Your task to perform on an android device: turn on priority inbox in the gmail app Image 0: 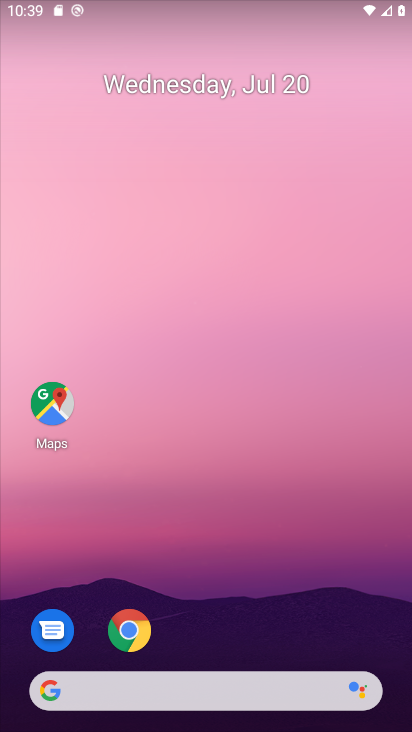
Step 0: drag from (297, 681) to (232, 87)
Your task to perform on an android device: turn on priority inbox in the gmail app Image 1: 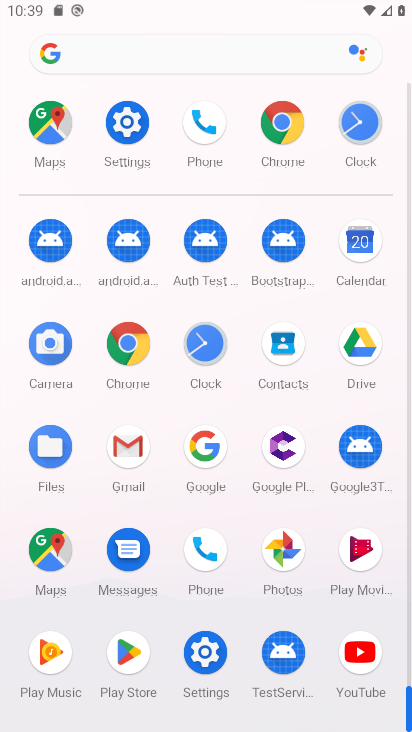
Step 1: click (126, 442)
Your task to perform on an android device: turn on priority inbox in the gmail app Image 2: 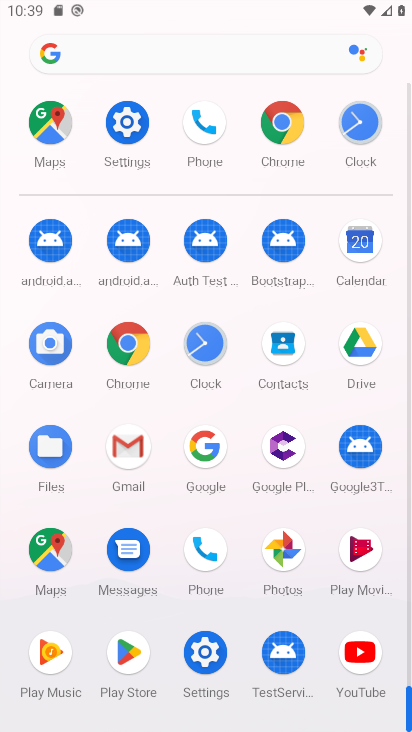
Step 2: click (126, 441)
Your task to perform on an android device: turn on priority inbox in the gmail app Image 3: 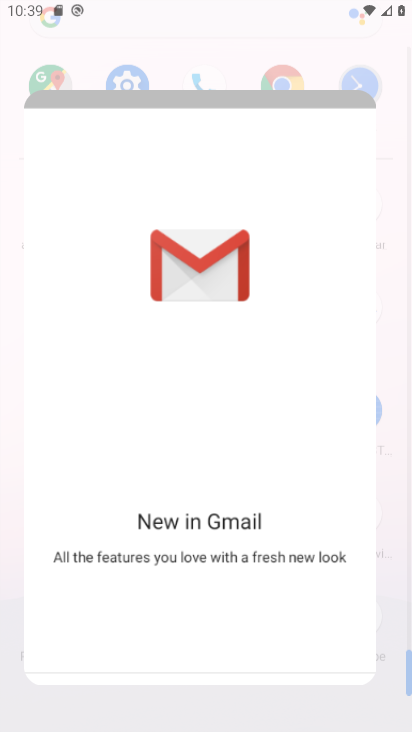
Step 3: click (125, 442)
Your task to perform on an android device: turn on priority inbox in the gmail app Image 4: 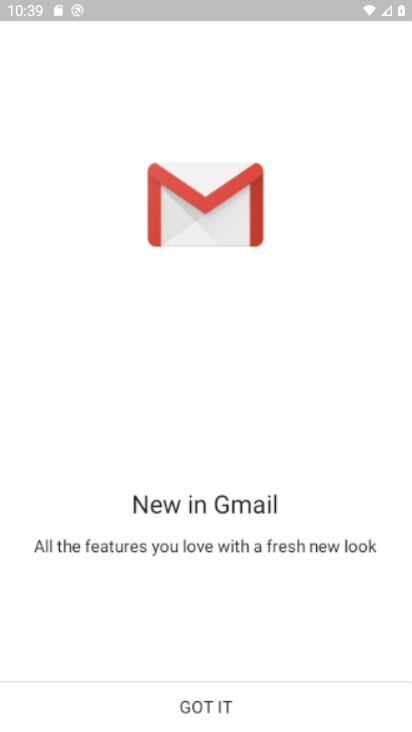
Step 4: click (125, 442)
Your task to perform on an android device: turn on priority inbox in the gmail app Image 5: 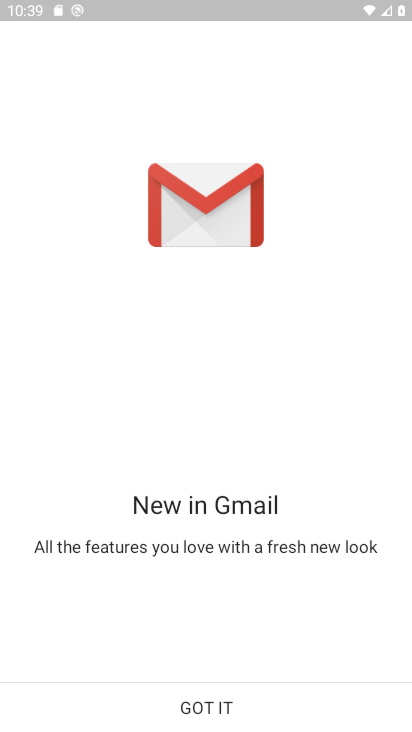
Step 5: click (125, 442)
Your task to perform on an android device: turn on priority inbox in the gmail app Image 6: 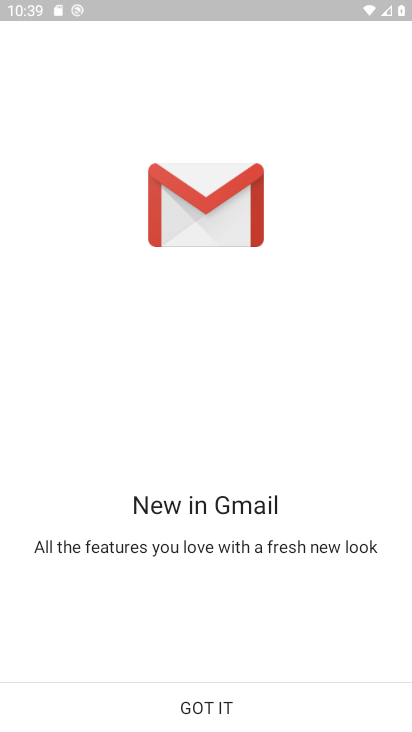
Step 6: click (125, 442)
Your task to perform on an android device: turn on priority inbox in the gmail app Image 7: 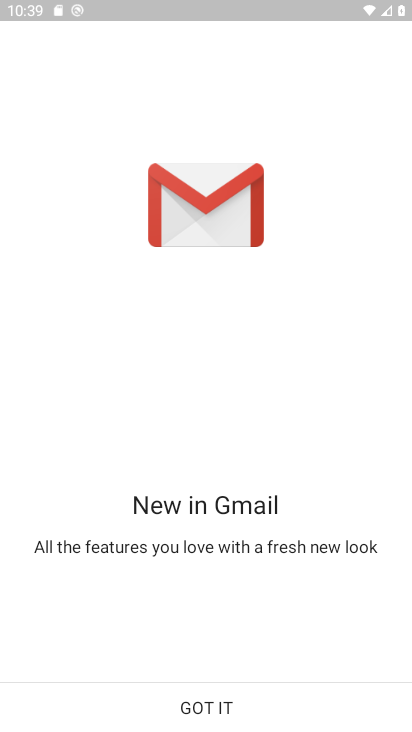
Step 7: click (223, 699)
Your task to perform on an android device: turn on priority inbox in the gmail app Image 8: 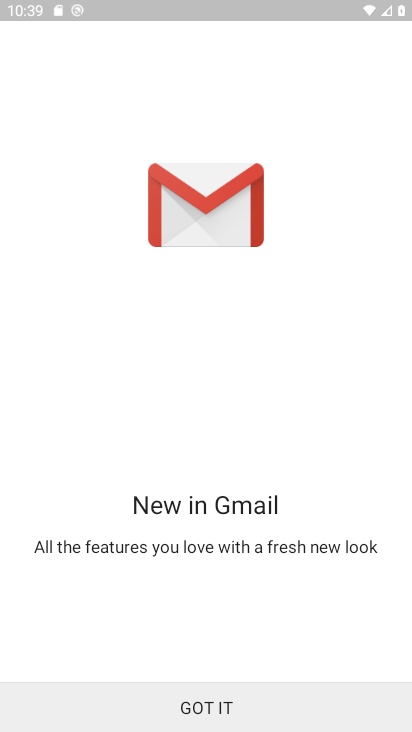
Step 8: click (225, 703)
Your task to perform on an android device: turn on priority inbox in the gmail app Image 9: 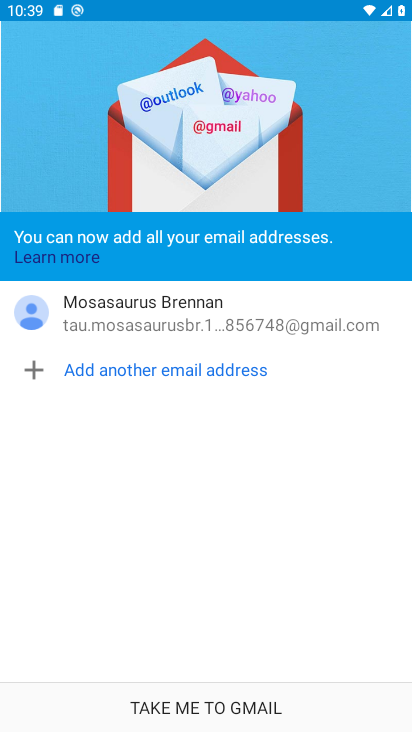
Step 9: click (248, 700)
Your task to perform on an android device: turn on priority inbox in the gmail app Image 10: 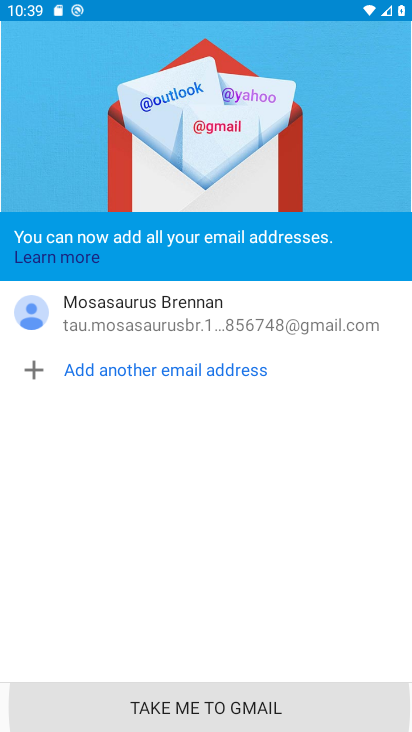
Step 10: click (250, 703)
Your task to perform on an android device: turn on priority inbox in the gmail app Image 11: 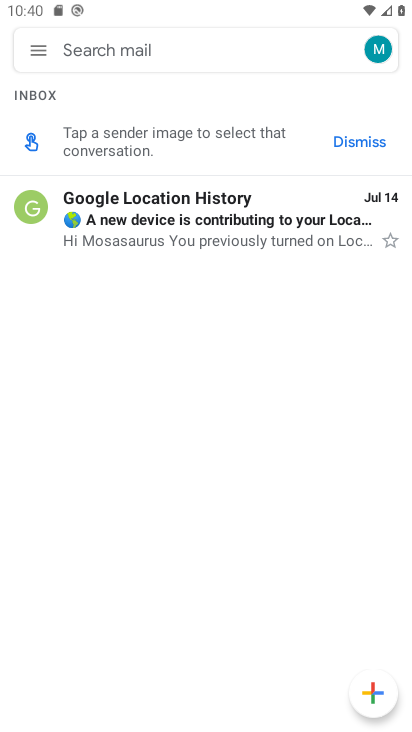
Step 11: drag from (38, 51) to (99, 426)
Your task to perform on an android device: turn on priority inbox in the gmail app Image 12: 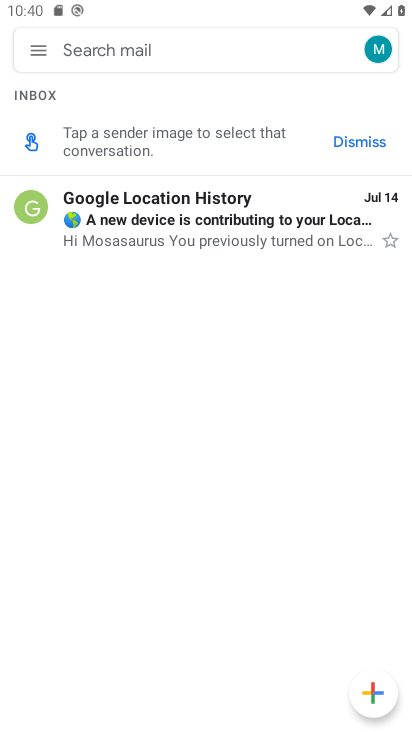
Step 12: click (39, 51)
Your task to perform on an android device: turn on priority inbox in the gmail app Image 13: 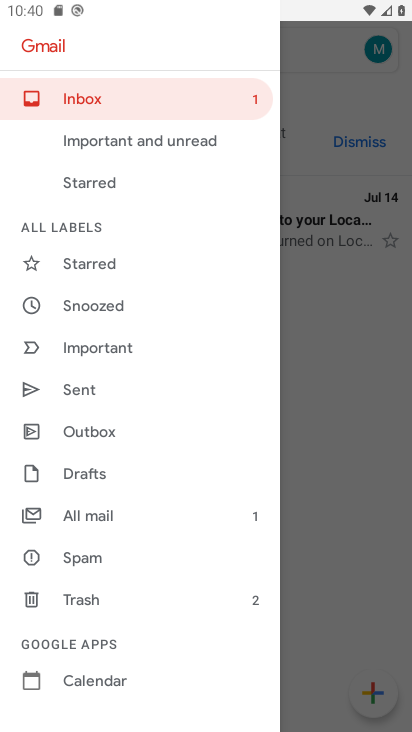
Step 13: drag from (119, 655) to (139, 14)
Your task to perform on an android device: turn on priority inbox in the gmail app Image 14: 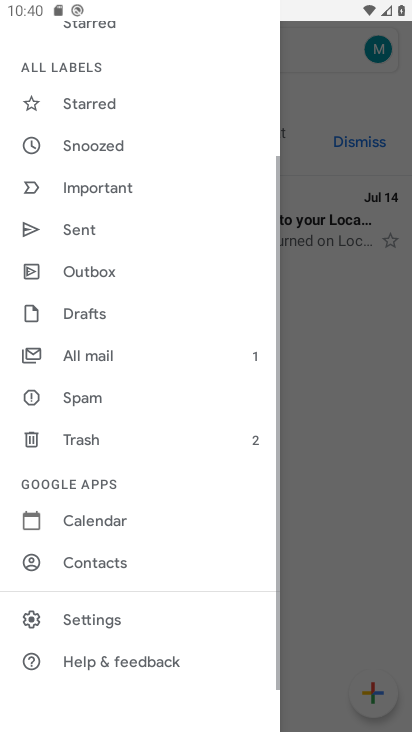
Step 14: drag from (131, 441) to (139, 107)
Your task to perform on an android device: turn on priority inbox in the gmail app Image 15: 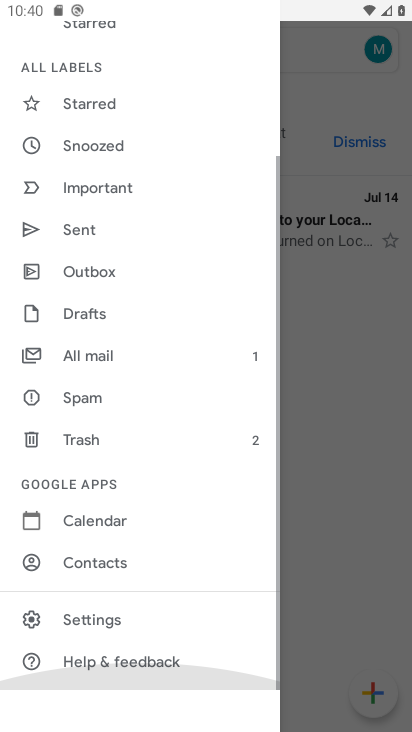
Step 15: drag from (136, 346) to (113, 215)
Your task to perform on an android device: turn on priority inbox in the gmail app Image 16: 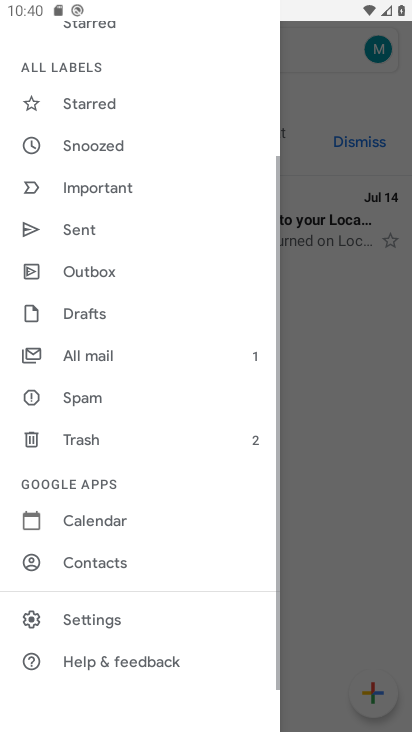
Step 16: click (109, 617)
Your task to perform on an android device: turn on priority inbox in the gmail app Image 17: 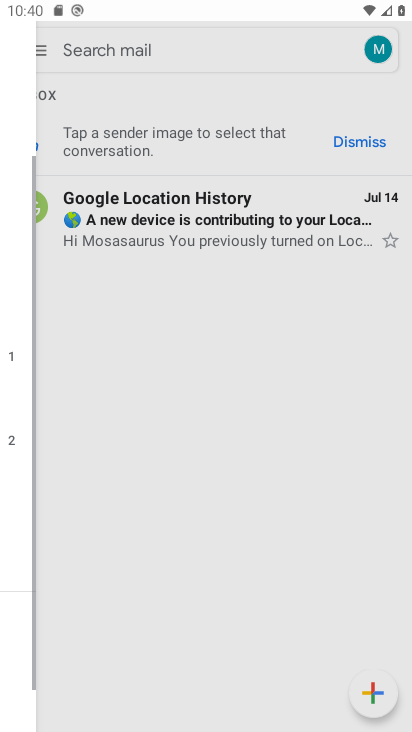
Step 17: click (101, 617)
Your task to perform on an android device: turn on priority inbox in the gmail app Image 18: 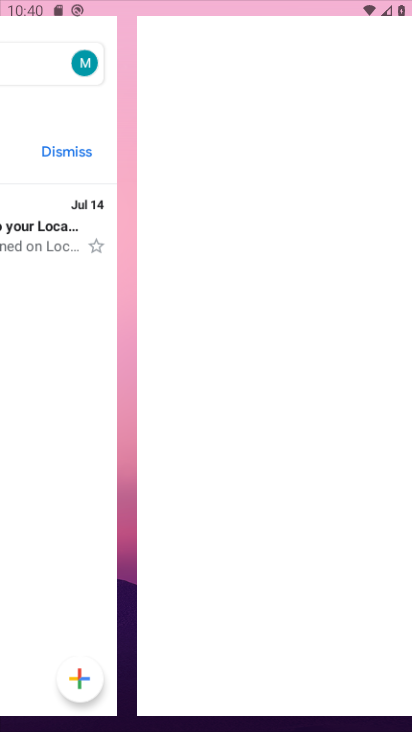
Step 18: click (99, 619)
Your task to perform on an android device: turn on priority inbox in the gmail app Image 19: 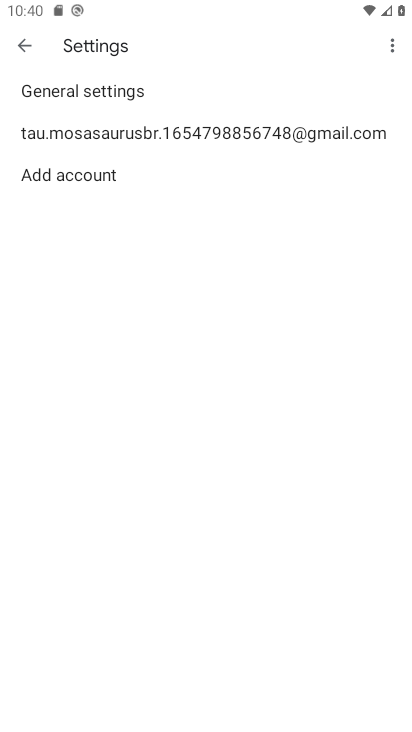
Step 19: click (120, 142)
Your task to perform on an android device: turn on priority inbox in the gmail app Image 20: 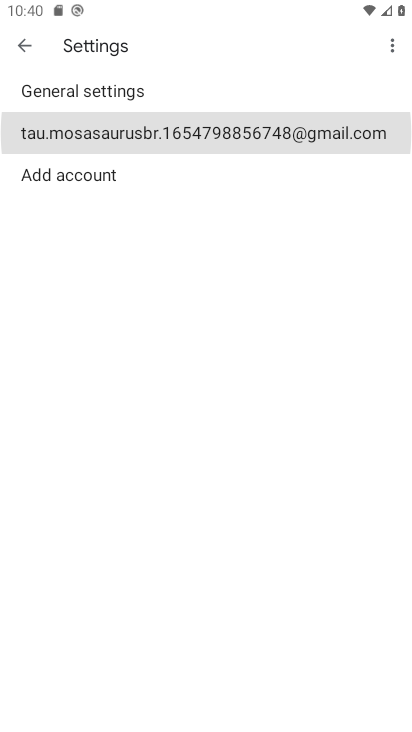
Step 20: click (121, 135)
Your task to perform on an android device: turn on priority inbox in the gmail app Image 21: 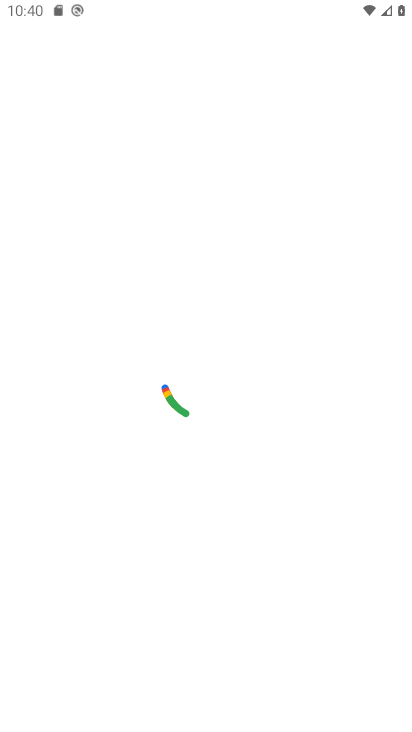
Step 21: click (78, 196)
Your task to perform on an android device: turn on priority inbox in the gmail app Image 22: 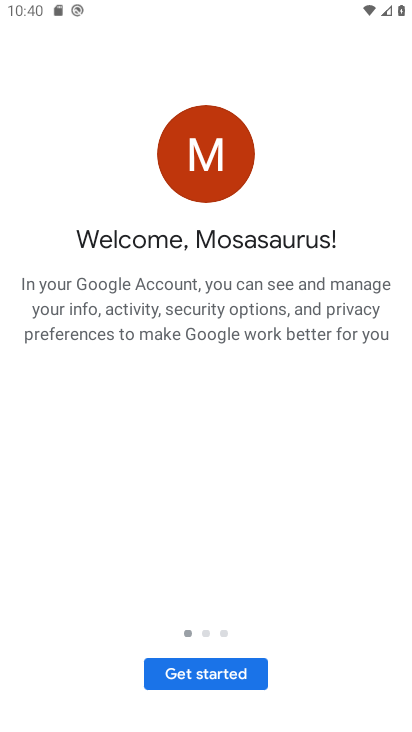
Step 22: task complete